Your task to perform on an android device: Go to internet settings Image 0: 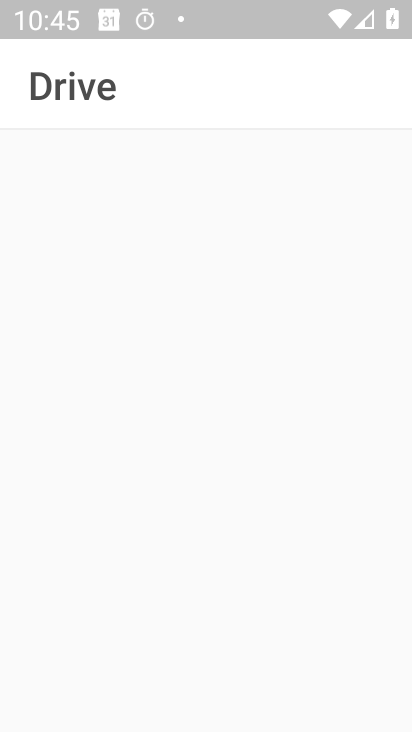
Step 0: press home button
Your task to perform on an android device: Go to internet settings Image 1: 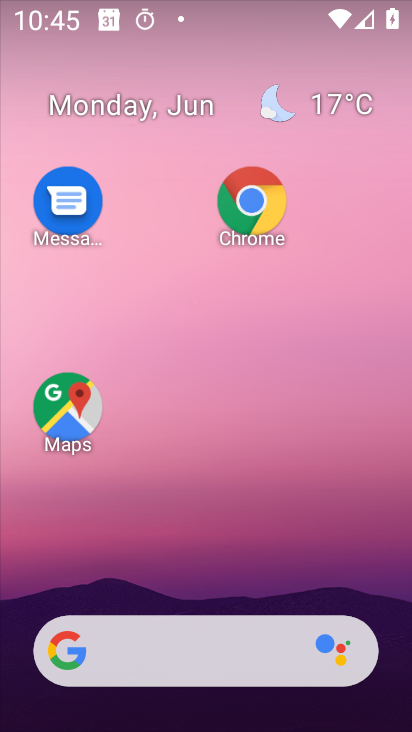
Step 1: drag from (242, 598) to (207, 41)
Your task to perform on an android device: Go to internet settings Image 2: 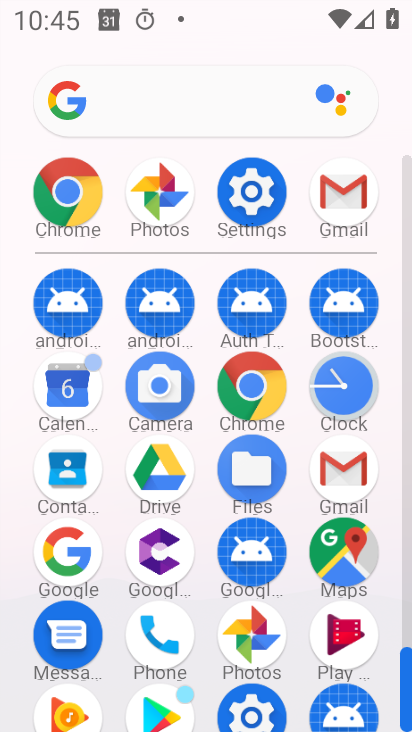
Step 2: click (228, 195)
Your task to perform on an android device: Go to internet settings Image 3: 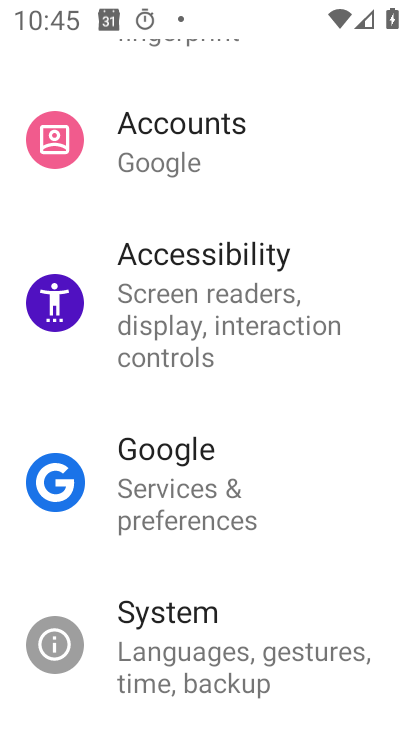
Step 3: drag from (279, 243) to (275, 645)
Your task to perform on an android device: Go to internet settings Image 4: 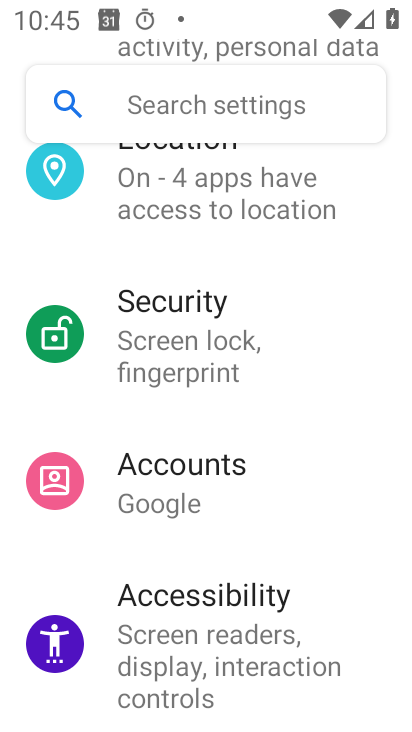
Step 4: drag from (277, 225) to (208, 696)
Your task to perform on an android device: Go to internet settings Image 5: 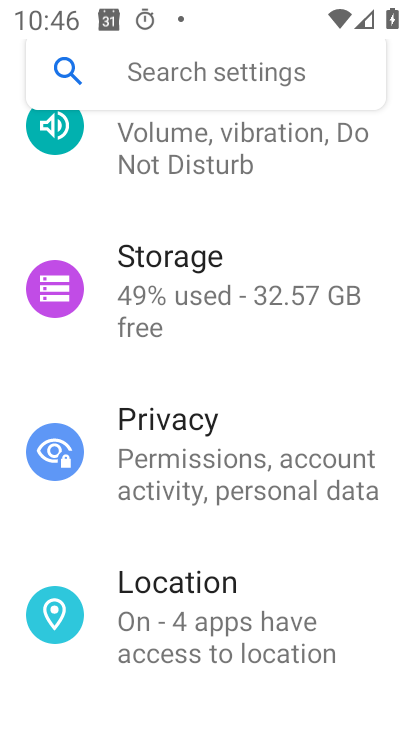
Step 5: drag from (223, 352) to (11, 648)
Your task to perform on an android device: Go to internet settings Image 6: 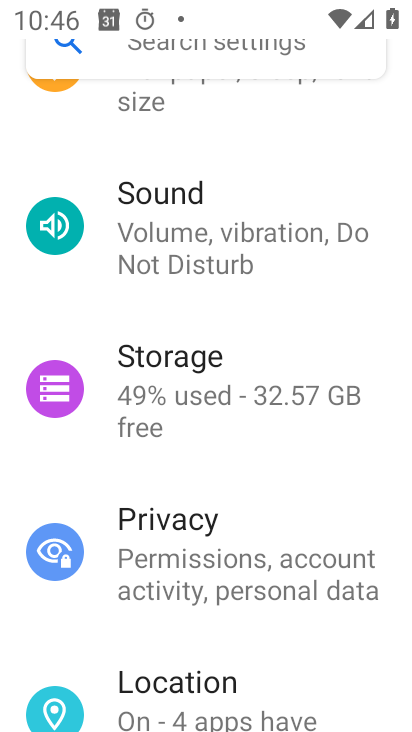
Step 6: drag from (248, 171) to (281, 710)
Your task to perform on an android device: Go to internet settings Image 7: 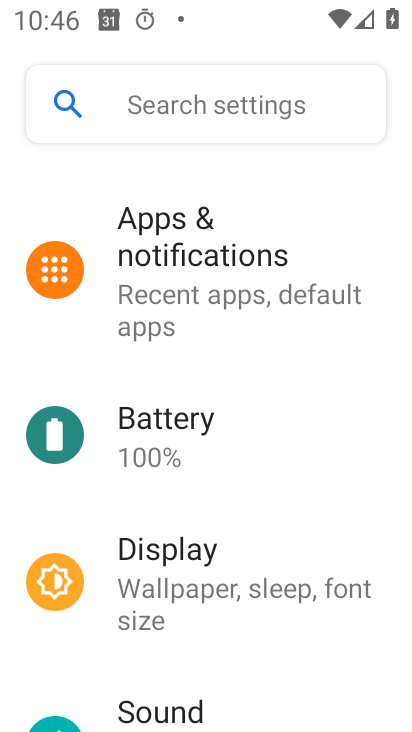
Step 7: drag from (254, 313) to (227, 700)
Your task to perform on an android device: Go to internet settings Image 8: 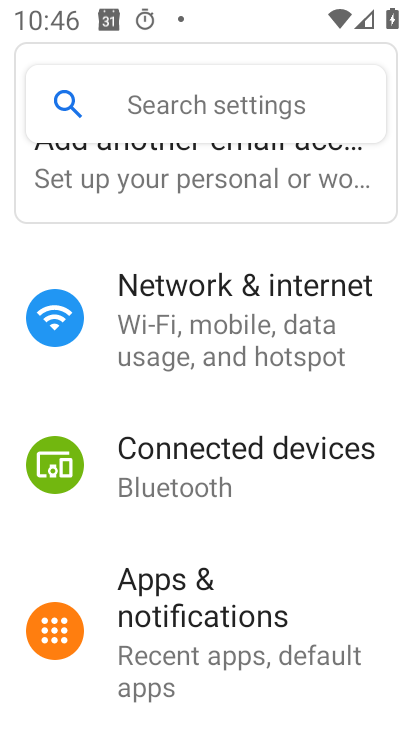
Step 8: click (213, 378)
Your task to perform on an android device: Go to internet settings Image 9: 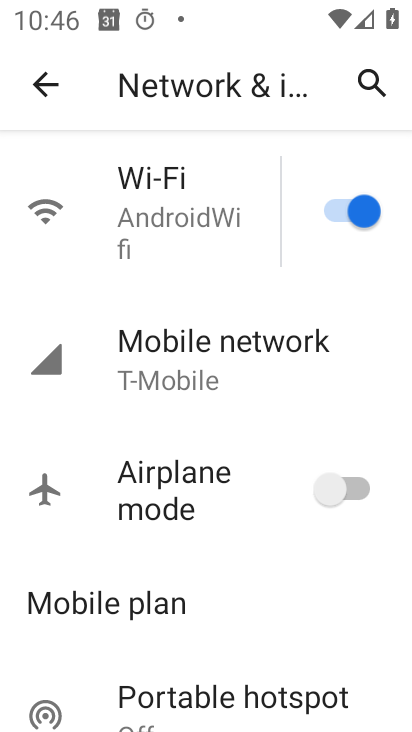
Step 9: click (213, 378)
Your task to perform on an android device: Go to internet settings Image 10: 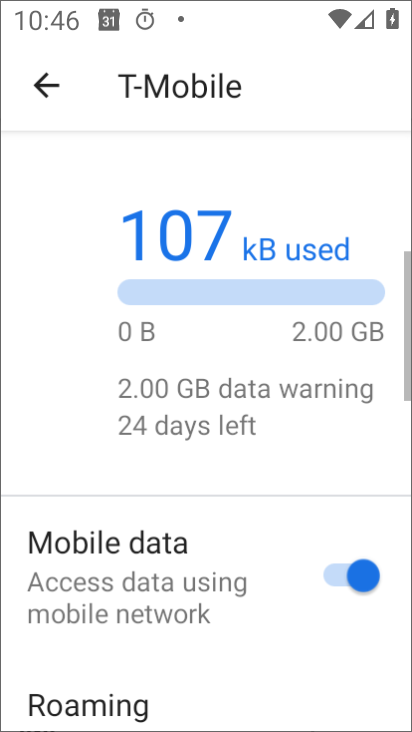
Step 10: task complete